Your task to perform on an android device: turn on data saver in the chrome app Image 0: 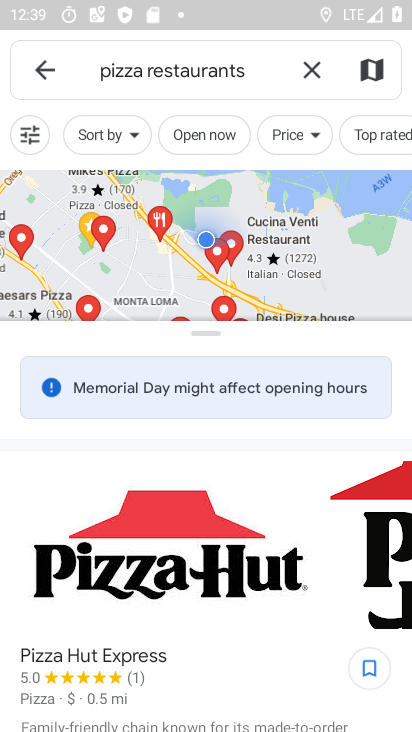
Step 0: press home button
Your task to perform on an android device: turn on data saver in the chrome app Image 1: 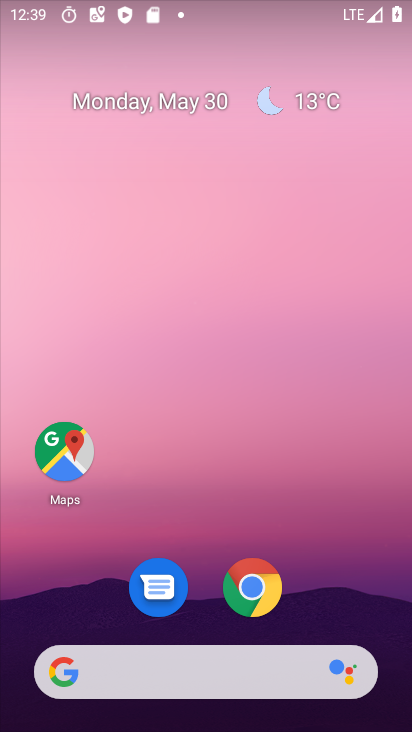
Step 1: drag from (335, 577) to (295, 28)
Your task to perform on an android device: turn on data saver in the chrome app Image 2: 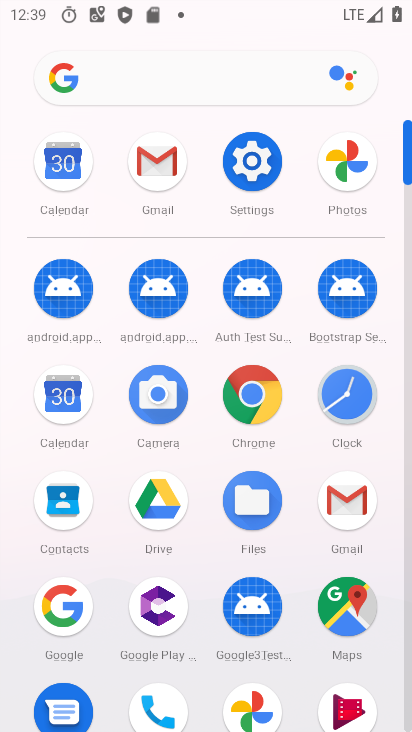
Step 2: click (253, 386)
Your task to perform on an android device: turn on data saver in the chrome app Image 3: 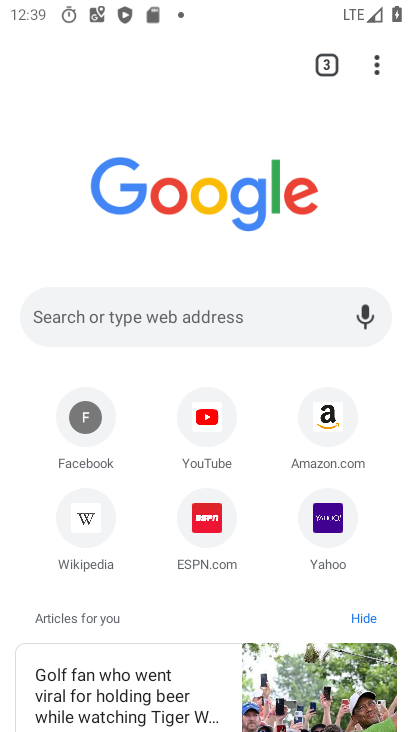
Step 3: click (383, 59)
Your task to perform on an android device: turn on data saver in the chrome app Image 4: 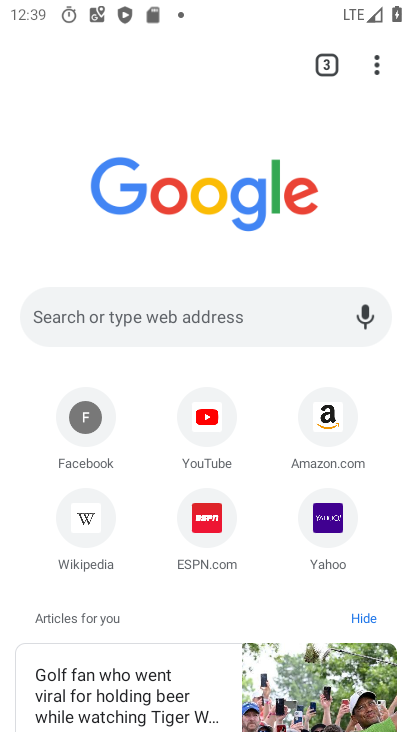
Step 4: drag from (372, 71) to (145, 543)
Your task to perform on an android device: turn on data saver in the chrome app Image 5: 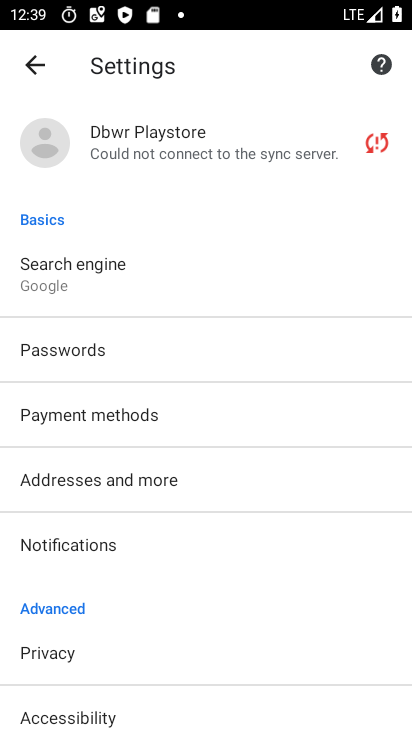
Step 5: drag from (166, 581) to (222, 156)
Your task to perform on an android device: turn on data saver in the chrome app Image 6: 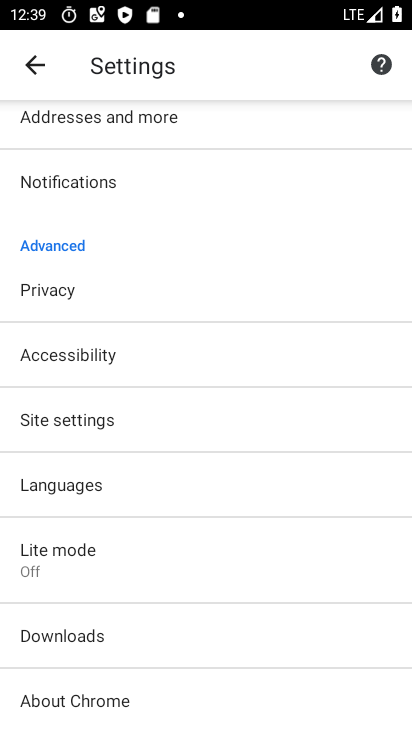
Step 6: click (109, 422)
Your task to perform on an android device: turn on data saver in the chrome app Image 7: 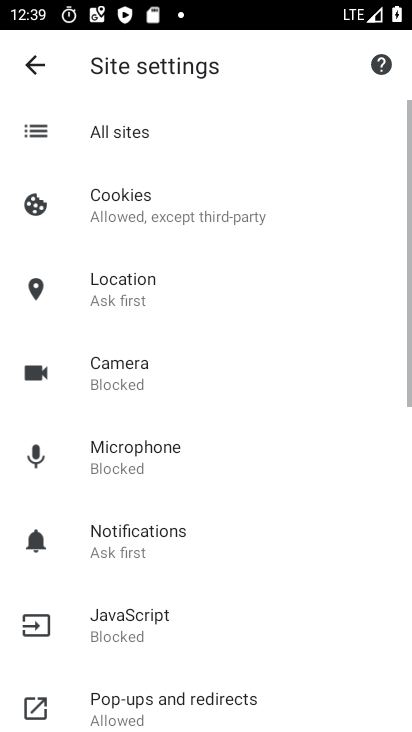
Step 7: drag from (257, 644) to (269, 240)
Your task to perform on an android device: turn on data saver in the chrome app Image 8: 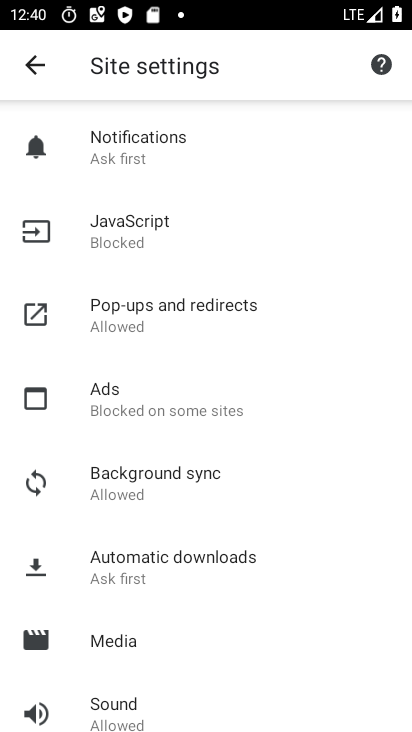
Step 8: click (31, 57)
Your task to perform on an android device: turn on data saver in the chrome app Image 9: 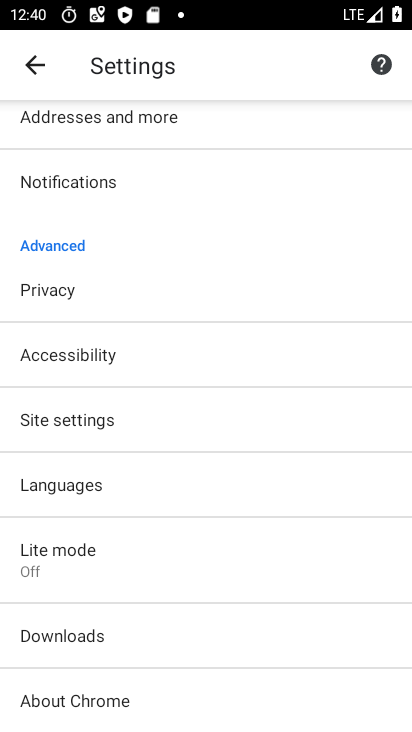
Step 9: click (72, 558)
Your task to perform on an android device: turn on data saver in the chrome app Image 10: 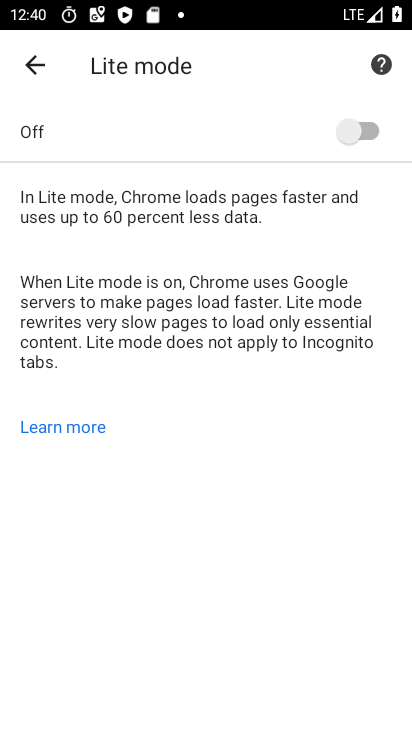
Step 10: click (375, 117)
Your task to perform on an android device: turn on data saver in the chrome app Image 11: 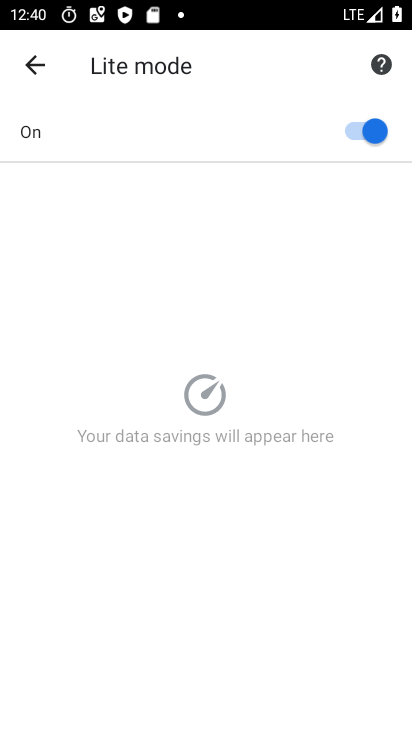
Step 11: task complete